Your task to perform on an android device: toggle javascript in the chrome app Image 0: 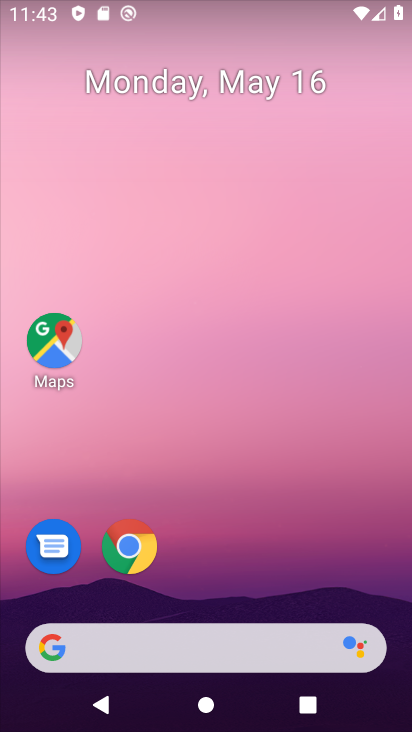
Step 0: click (131, 544)
Your task to perform on an android device: toggle javascript in the chrome app Image 1: 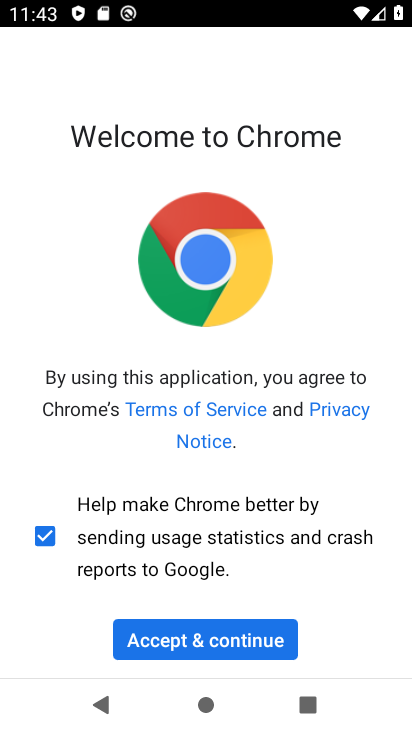
Step 1: click (224, 643)
Your task to perform on an android device: toggle javascript in the chrome app Image 2: 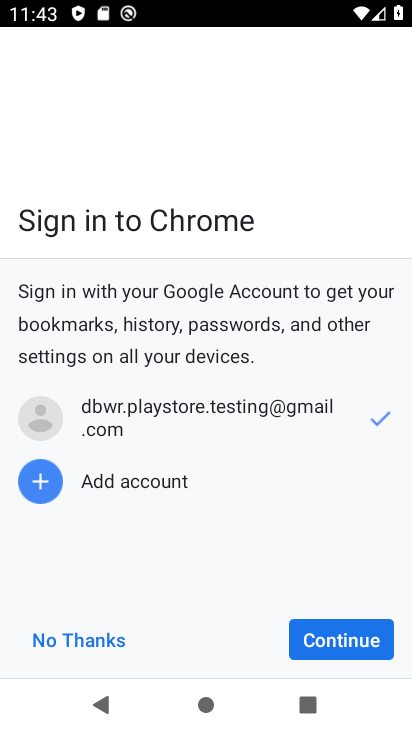
Step 2: click (332, 648)
Your task to perform on an android device: toggle javascript in the chrome app Image 3: 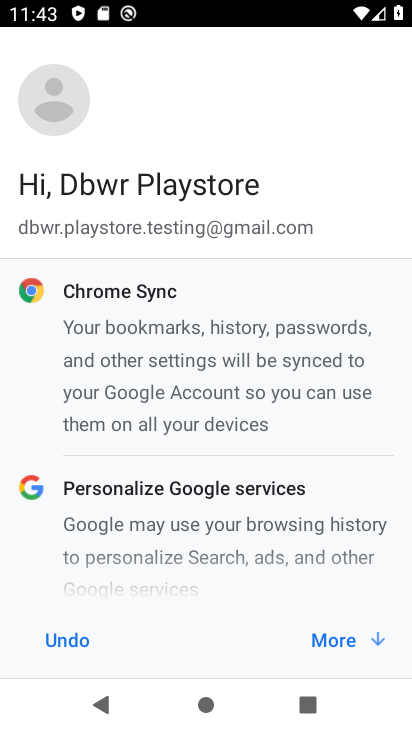
Step 3: click (328, 644)
Your task to perform on an android device: toggle javascript in the chrome app Image 4: 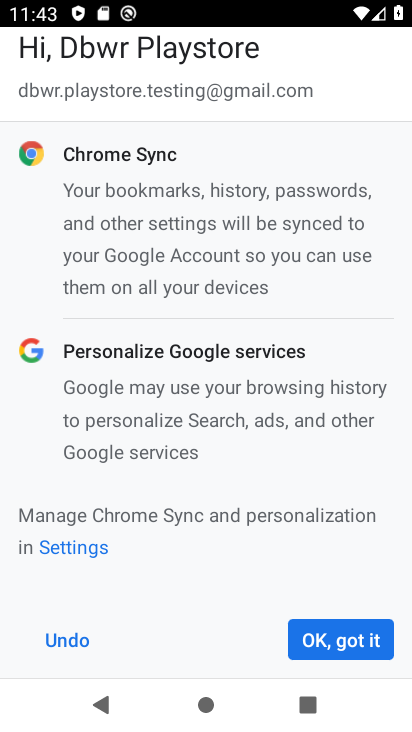
Step 4: click (334, 640)
Your task to perform on an android device: toggle javascript in the chrome app Image 5: 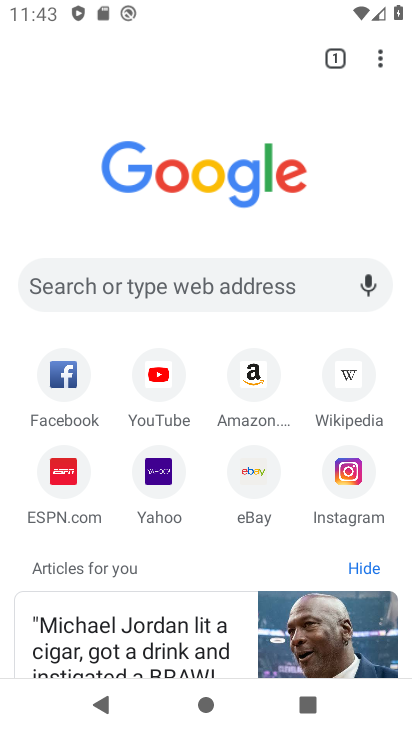
Step 5: click (367, 67)
Your task to perform on an android device: toggle javascript in the chrome app Image 6: 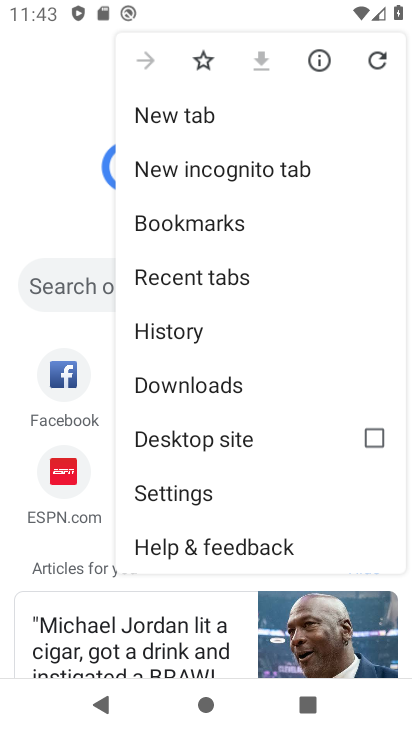
Step 6: click (291, 498)
Your task to perform on an android device: toggle javascript in the chrome app Image 7: 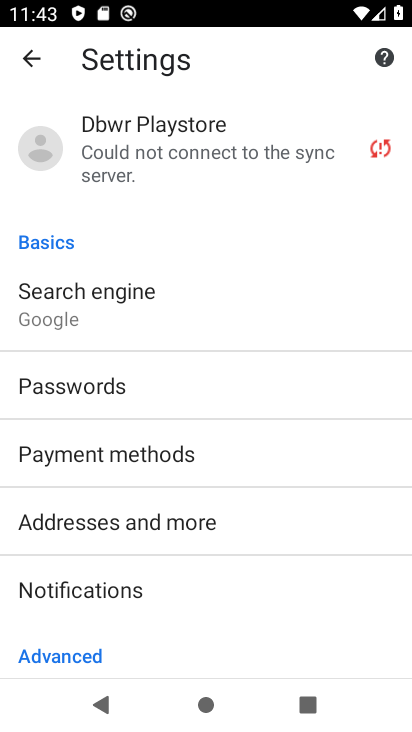
Step 7: drag from (224, 575) to (193, 171)
Your task to perform on an android device: toggle javascript in the chrome app Image 8: 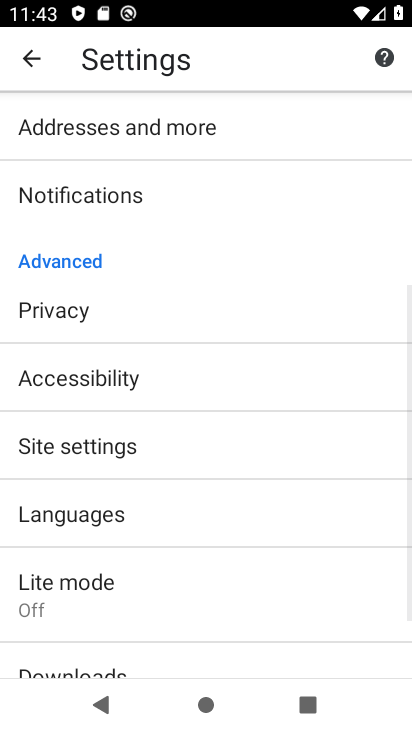
Step 8: drag from (202, 546) to (187, 398)
Your task to perform on an android device: toggle javascript in the chrome app Image 9: 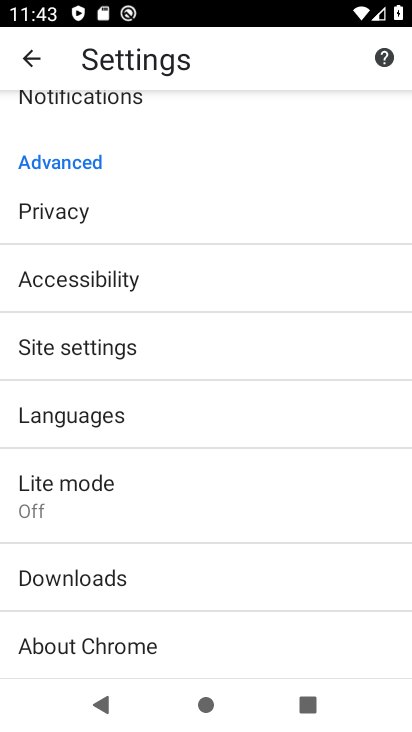
Step 9: click (88, 360)
Your task to perform on an android device: toggle javascript in the chrome app Image 10: 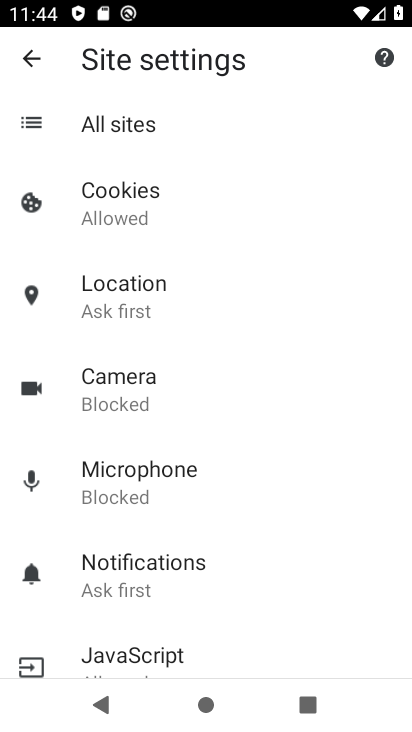
Step 10: click (160, 658)
Your task to perform on an android device: toggle javascript in the chrome app Image 11: 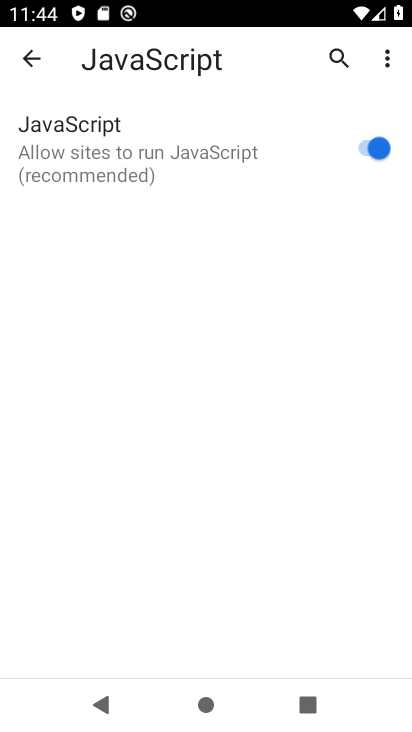
Step 11: click (378, 149)
Your task to perform on an android device: toggle javascript in the chrome app Image 12: 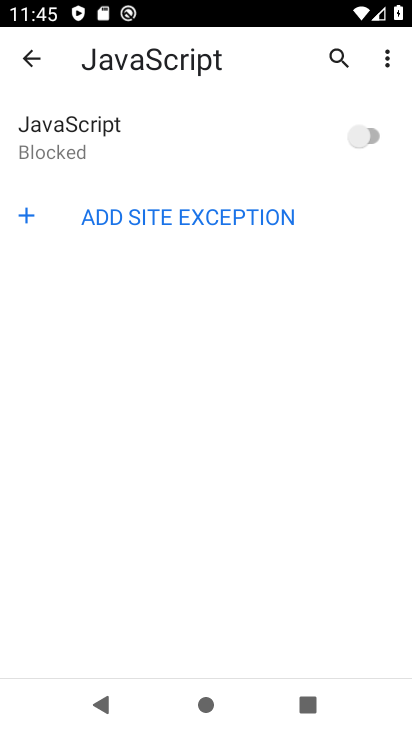
Step 12: task complete